Your task to perform on an android device: turn on priority inbox in the gmail app Image 0: 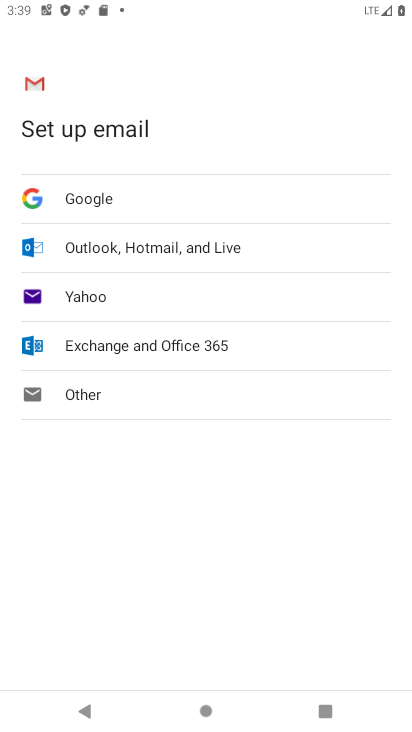
Step 0: press home button
Your task to perform on an android device: turn on priority inbox in the gmail app Image 1: 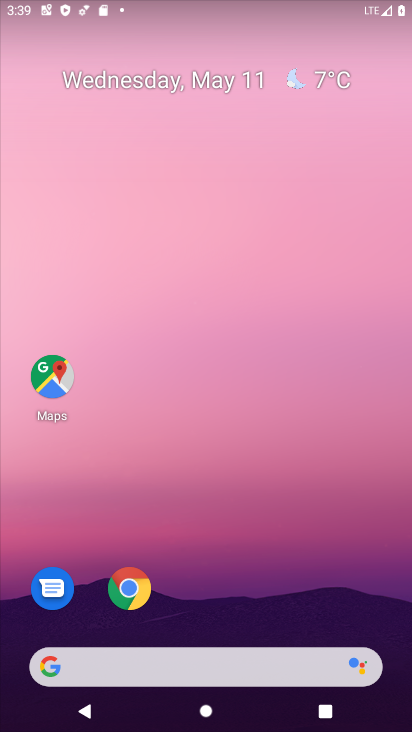
Step 1: drag from (218, 723) to (219, 175)
Your task to perform on an android device: turn on priority inbox in the gmail app Image 2: 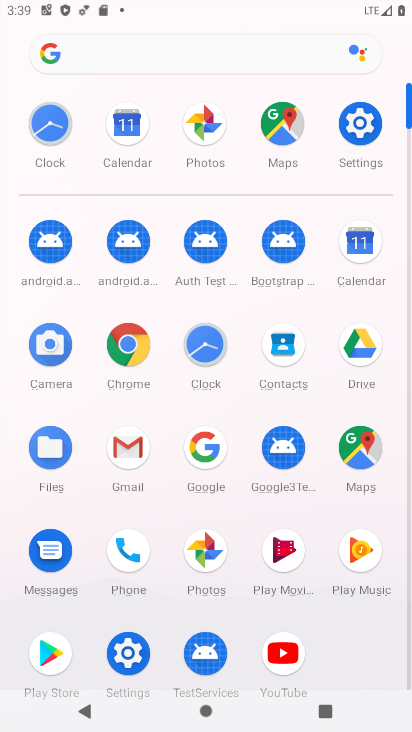
Step 2: click (124, 450)
Your task to perform on an android device: turn on priority inbox in the gmail app Image 3: 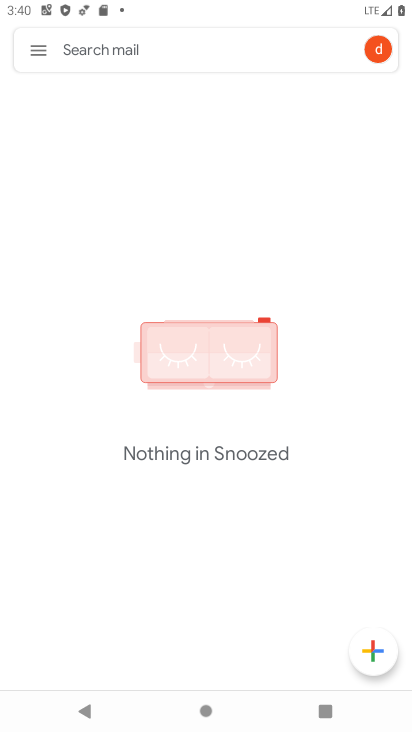
Step 3: click (34, 45)
Your task to perform on an android device: turn on priority inbox in the gmail app Image 4: 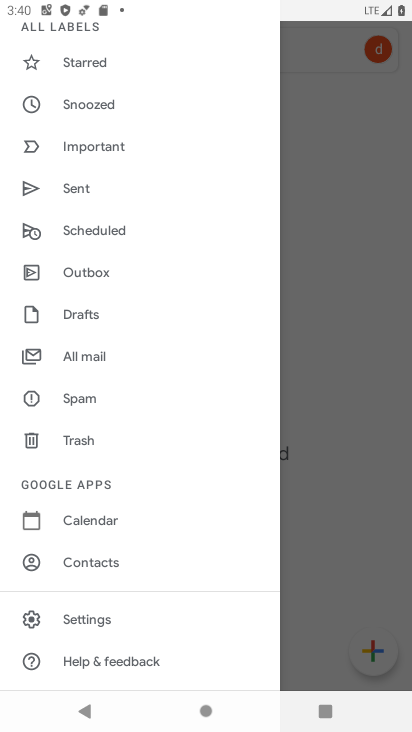
Step 4: click (103, 619)
Your task to perform on an android device: turn on priority inbox in the gmail app Image 5: 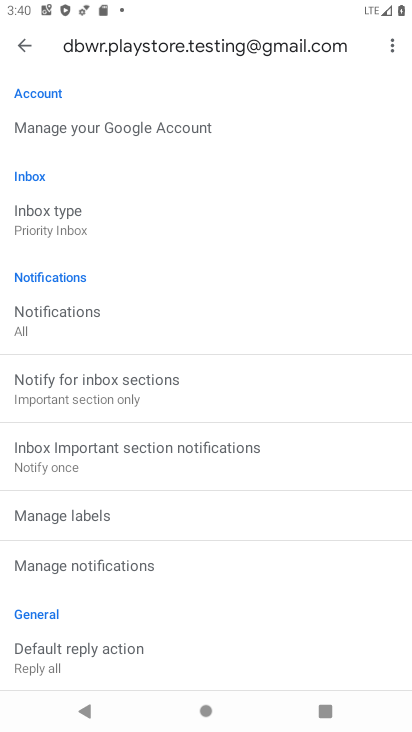
Step 5: task complete